Your task to perform on an android device: Search for a new skincare product Image 0: 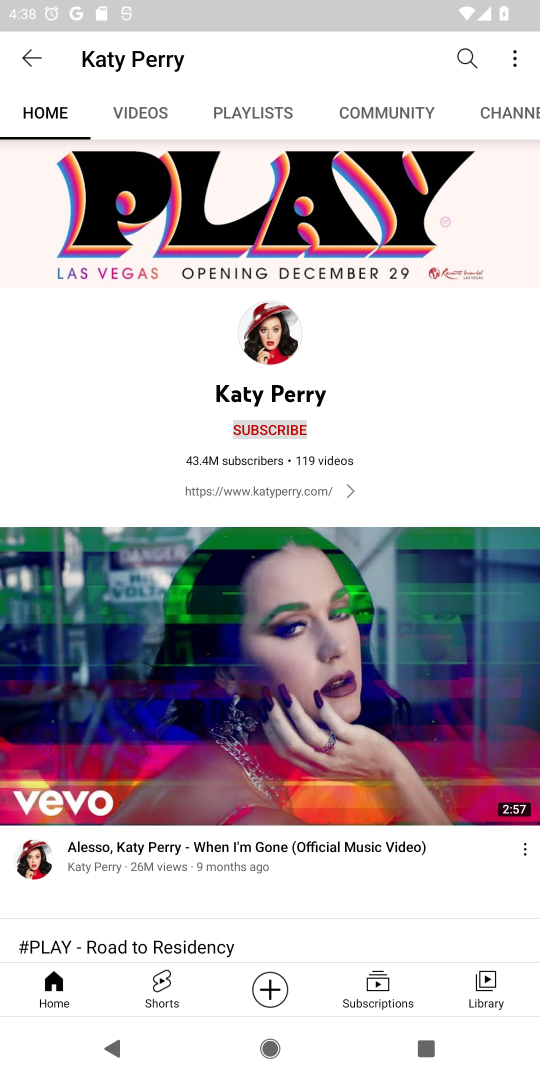
Step 0: press home button
Your task to perform on an android device: Search for a new skincare product Image 1: 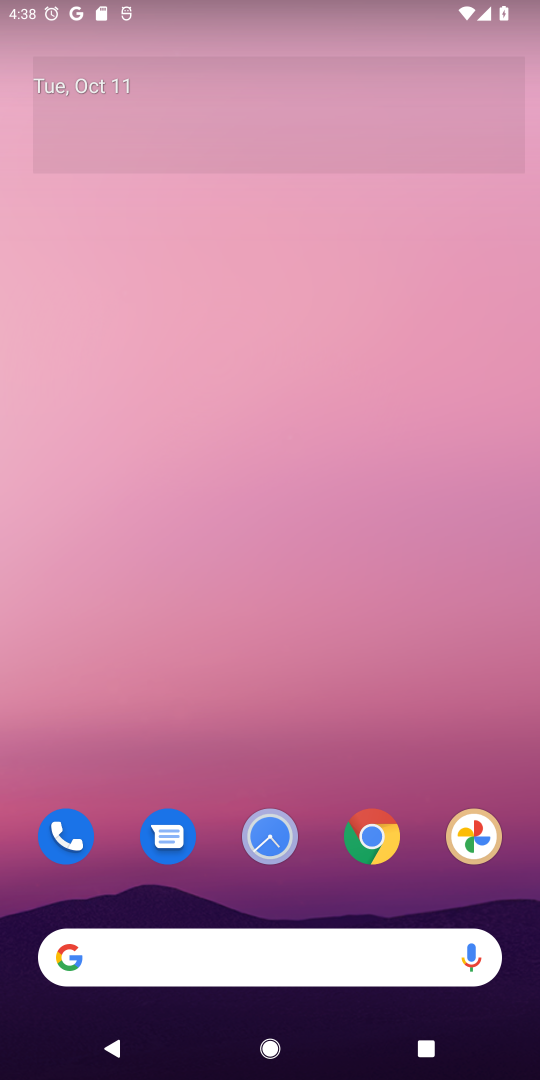
Step 1: click (225, 941)
Your task to perform on an android device: Search for a new skincare product Image 2: 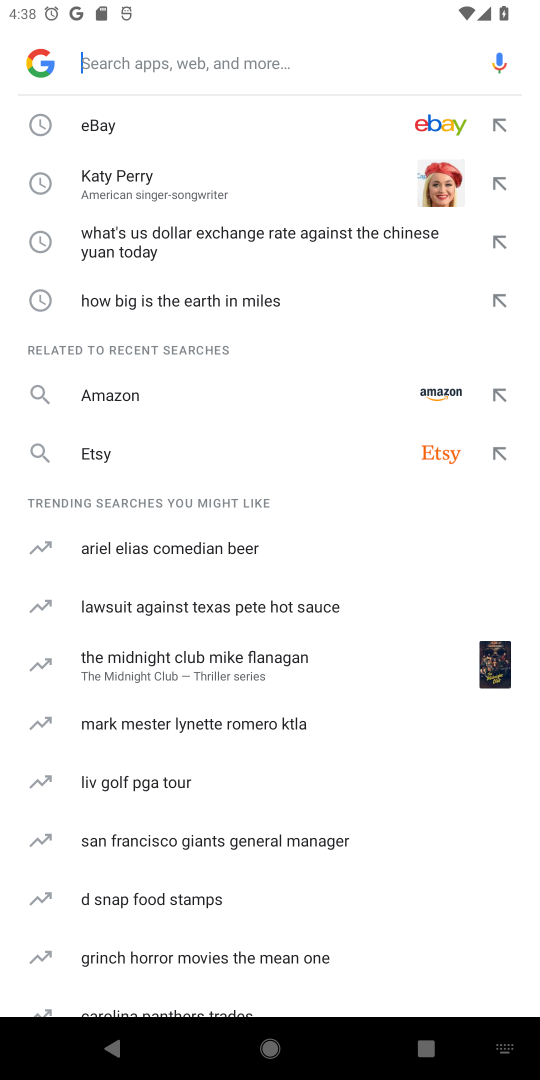
Step 2: type "new skincare product"
Your task to perform on an android device: Search for a new skincare product Image 3: 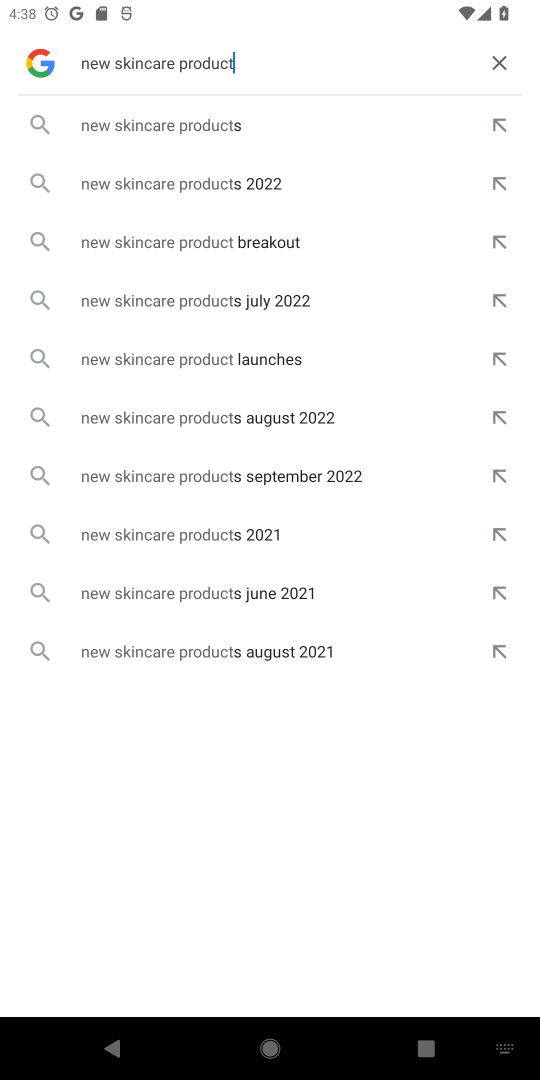
Step 3: click (299, 139)
Your task to perform on an android device: Search for a new skincare product Image 4: 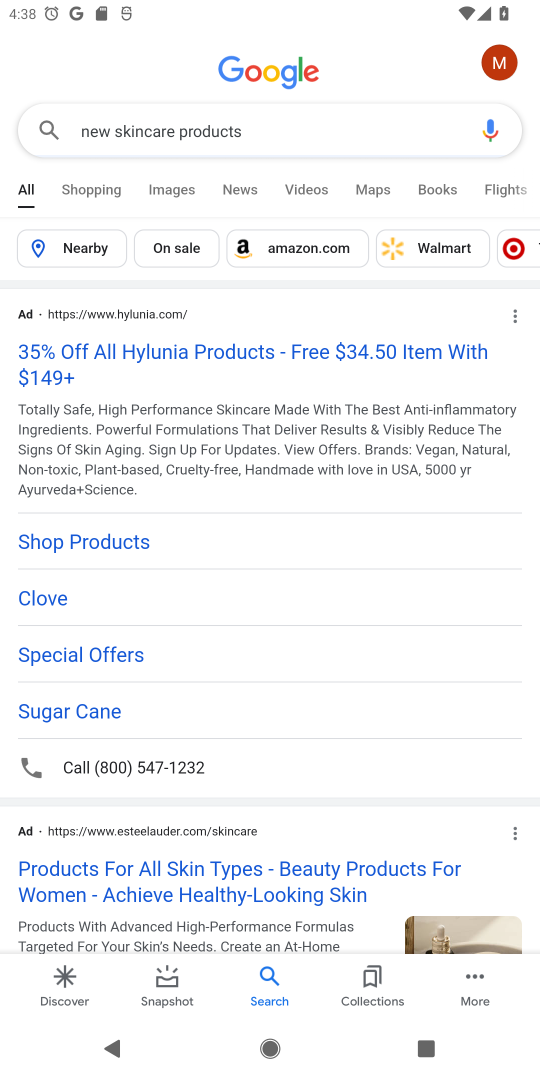
Step 4: task complete